Your task to perform on an android device: Open Chrome and go to settings Image 0: 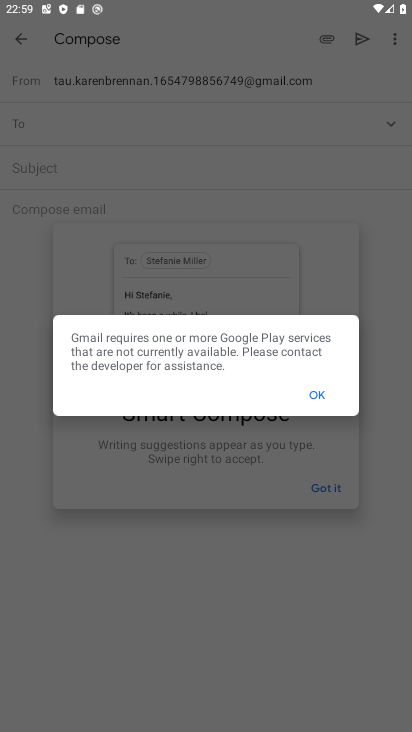
Step 0: press home button
Your task to perform on an android device: Open Chrome and go to settings Image 1: 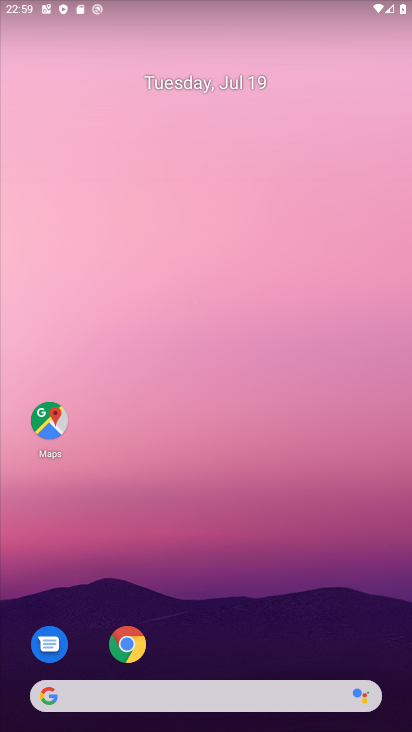
Step 1: click (126, 646)
Your task to perform on an android device: Open Chrome and go to settings Image 2: 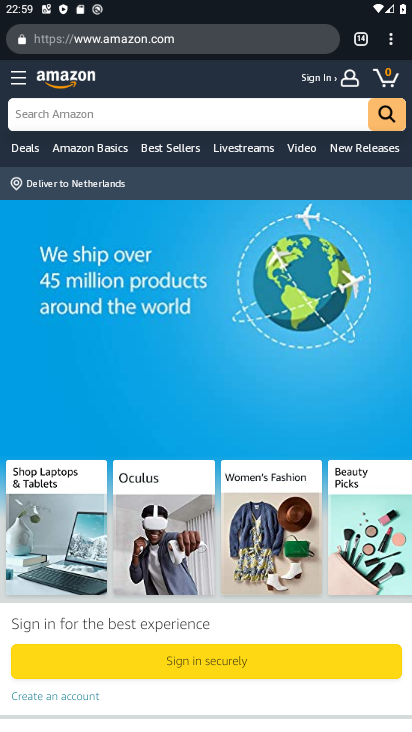
Step 2: click (390, 42)
Your task to perform on an android device: Open Chrome and go to settings Image 3: 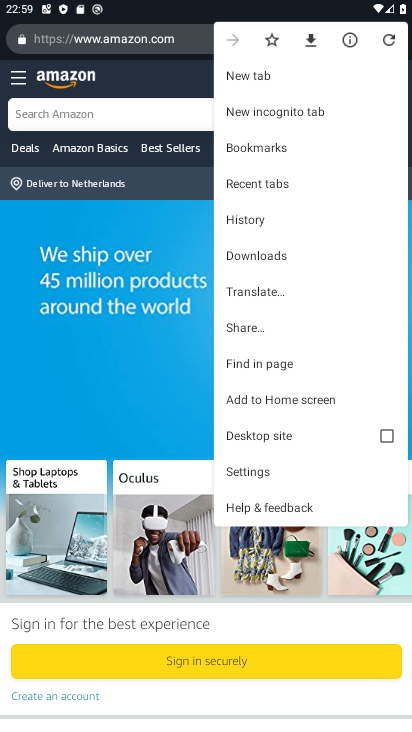
Step 3: click (249, 469)
Your task to perform on an android device: Open Chrome and go to settings Image 4: 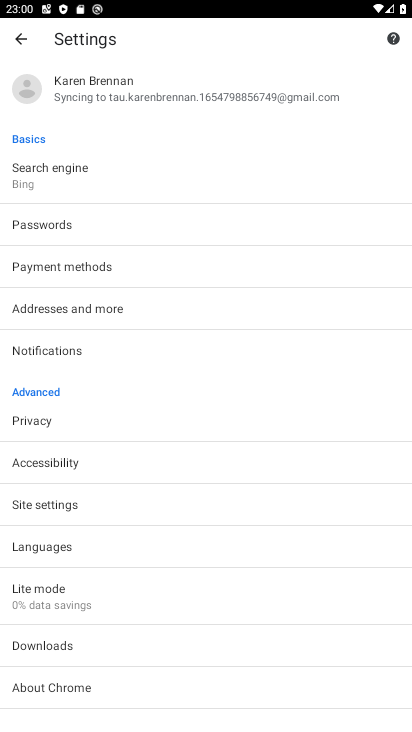
Step 4: task complete